Your task to perform on an android device: change notification settings in the gmail app Image 0: 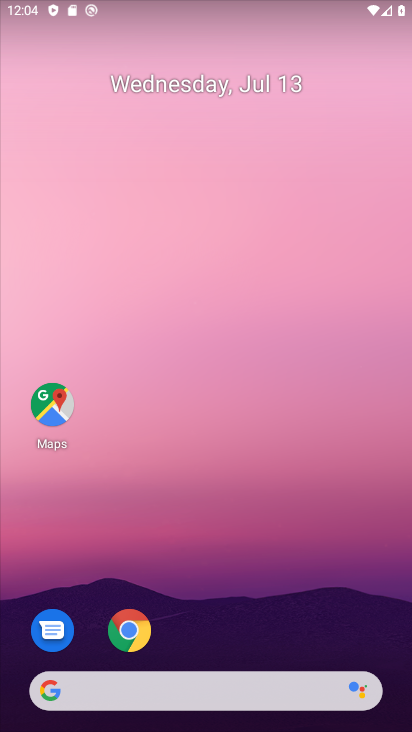
Step 0: drag from (207, 646) to (247, 46)
Your task to perform on an android device: change notification settings in the gmail app Image 1: 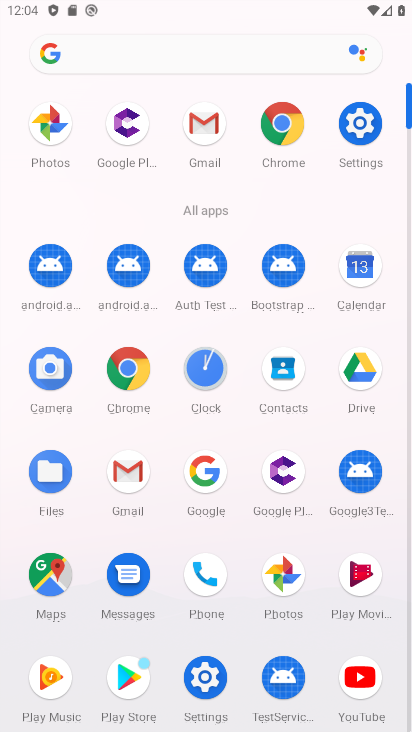
Step 1: click (126, 467)
Your task to perform on an android device: change notification settings in the gmail app Image 2: 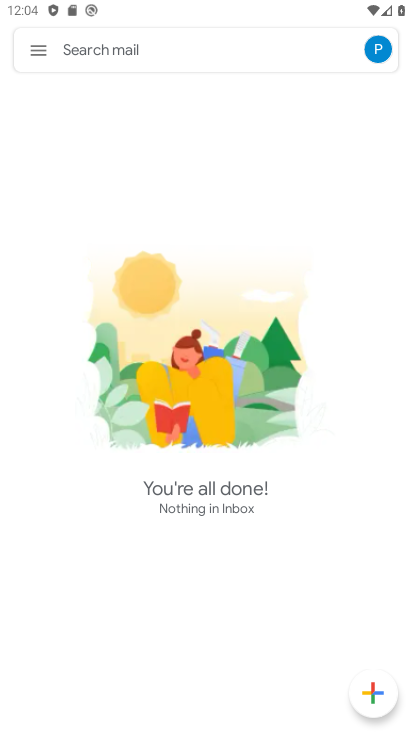
Step 2: click (38, 46)
Your task to perform on an android device: change notification settings in the gmail app Image 3: 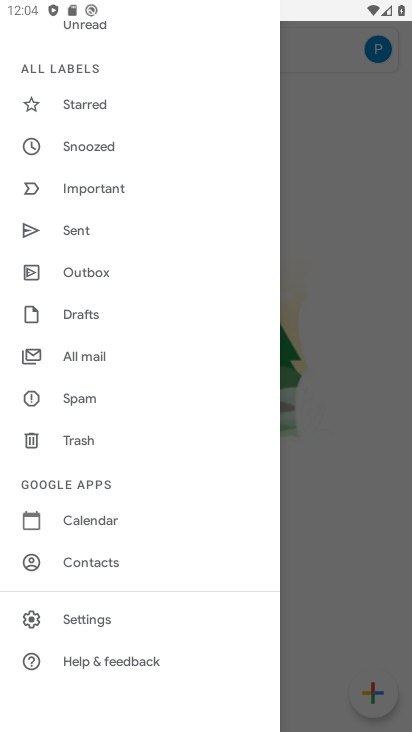
Step 3: click (116, 619)
Your task to perform on an android device: change notification settings in the gmail app Image 4: 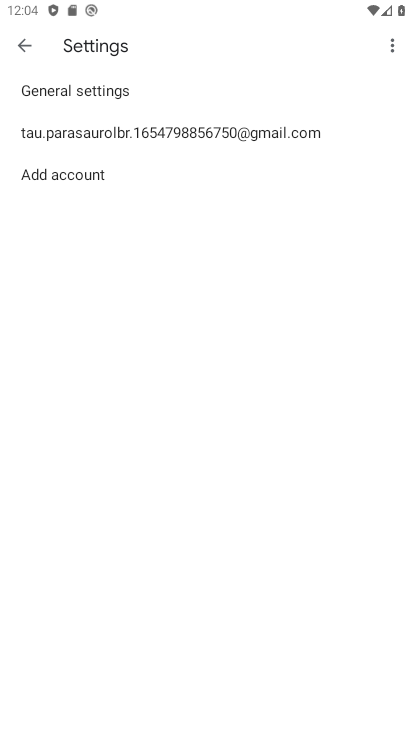
Step 4: click (145, 86)
Your task to perform on an android device: change notification settings in the gmail app Image 5: 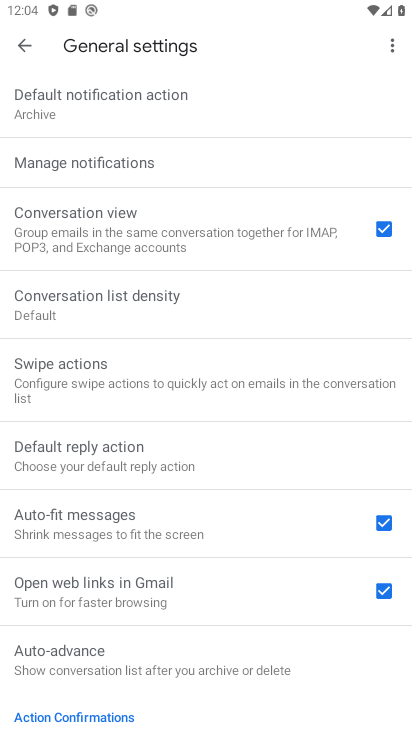
Step 5: click (164, 166)
Your task to perform on an android device: change notification settings in the gmail app Image 6: 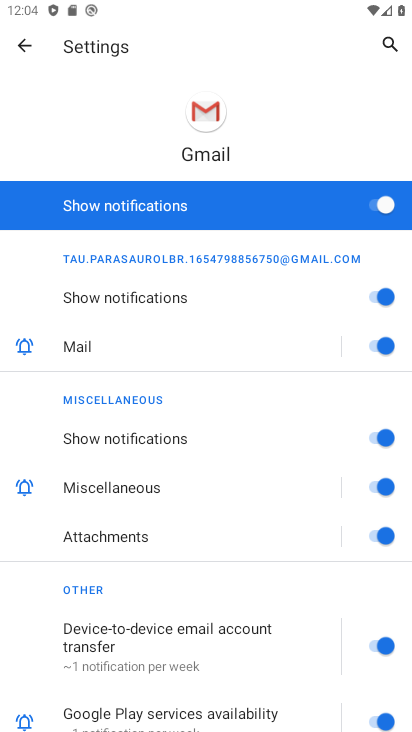
Step 6: click (376, 202)
Your task to perform on an android device: change notification settings in the gmail app Image 7: 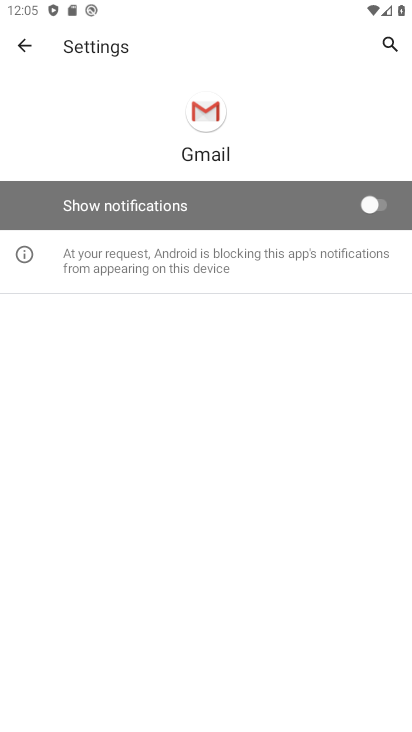
Step 7: task complete